Your task to perform on an android device: Show me popular games on the Play Store Image 0: 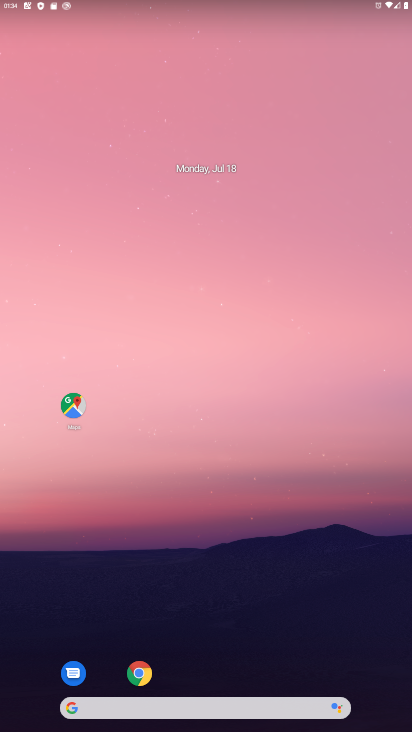
Step 0: drag from (262, 659) to (292, 39)
Your task to perform on an android device: Show me popular games on the Play Store Image 1: 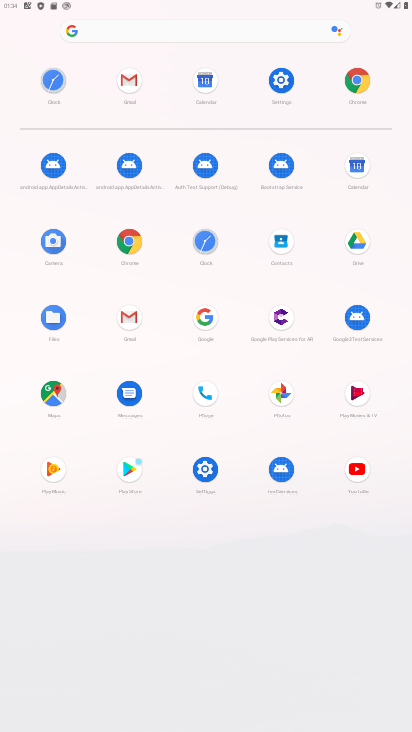
Step 1: click (361, 489)
Your task to perform on an android device: Show me popular games on the Play Store Image 2: 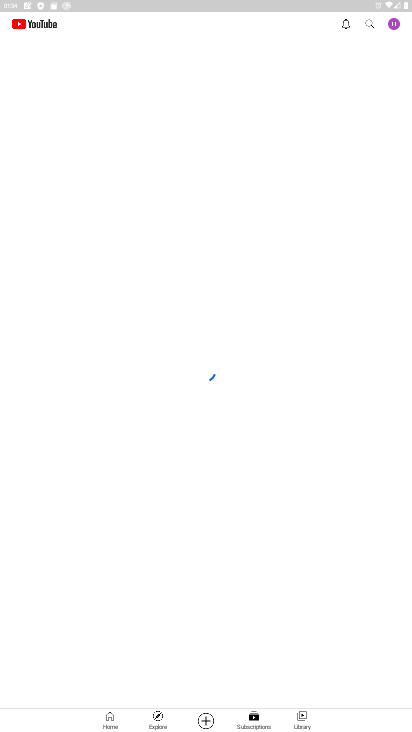
Step 2: press back button
Your task to perform on an android device: Show me popular games on the Play Store Image 3: 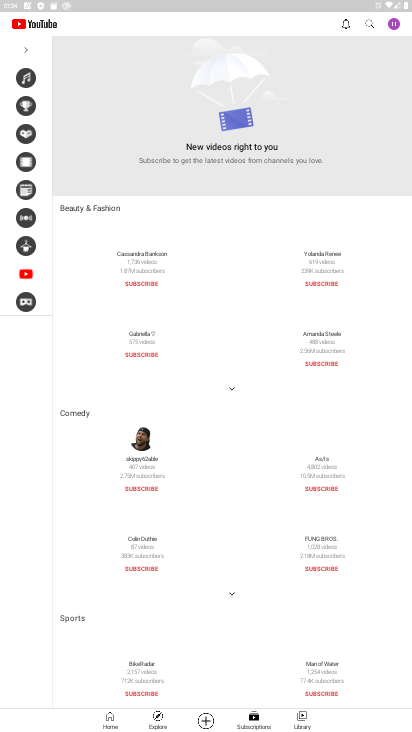
Step 3: press back button
Your task to perform on an android device: Show me popular games on the Play Store Image 4: 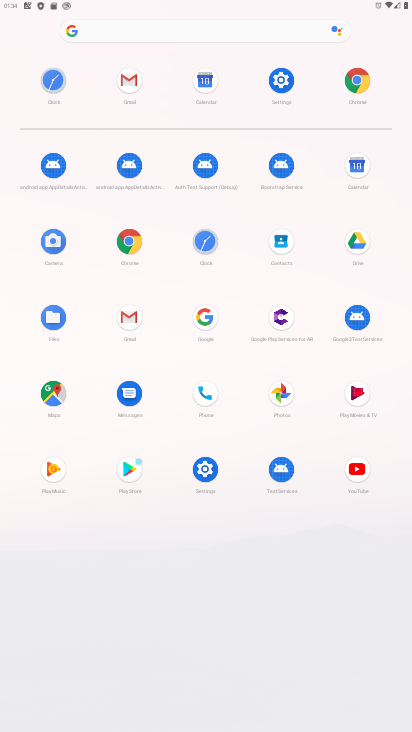
Step 4: click (139, 470)
Your task to perform on an android device: Show me popular games on the Play Store Image 5: 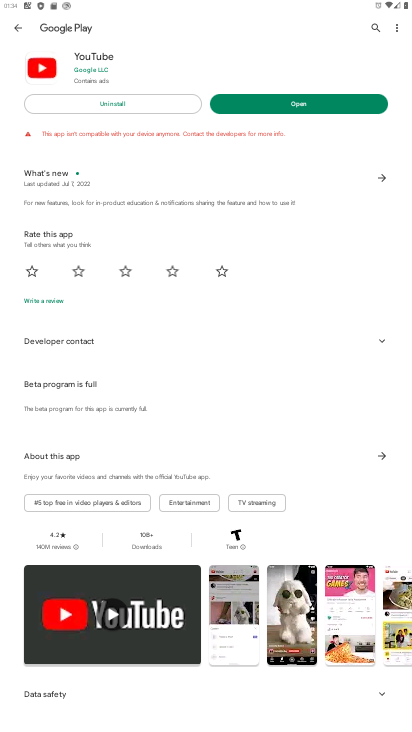
Step 5: click (11, 24)
Your task to perform on an android device: Show me popular games on the Play Store Image 6: 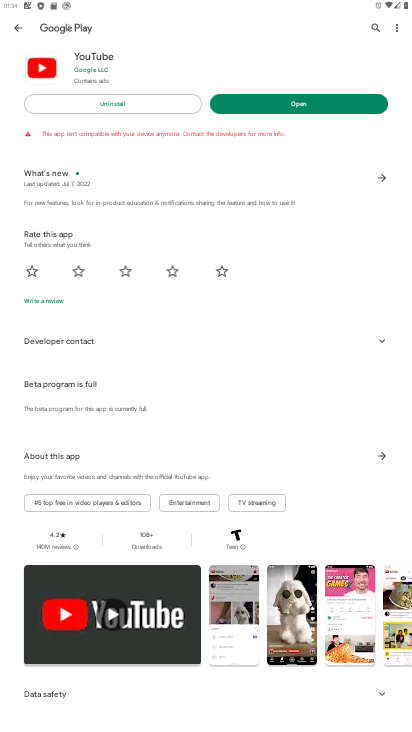
Step 6: click (22, 30)
Your task to perform on an android device: Show me popular games on the Play Store Image 7: 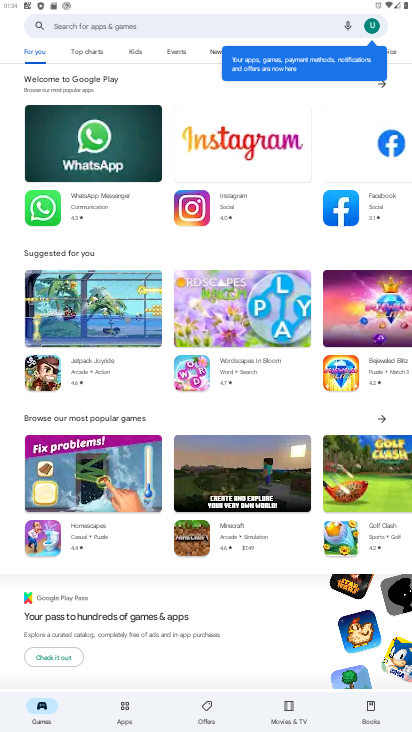
Step 7: click (126, 717)
Your task to perform on an android device: Show me popular games on the Play Store Image 8: 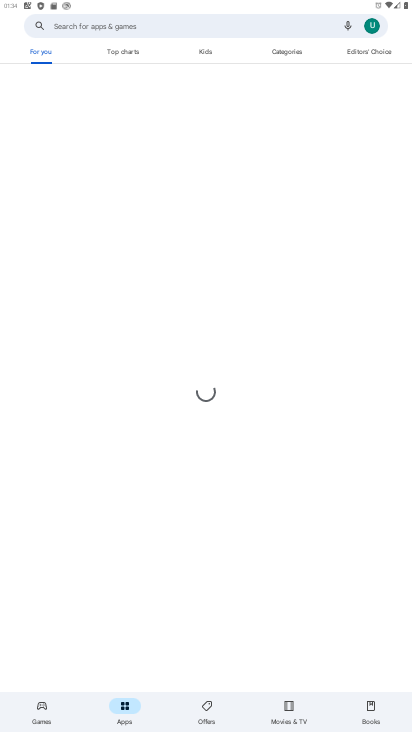
Step 8: click (32, 711)
Your task to perform on an android device: Show me popular games on the Play Store Image 9: 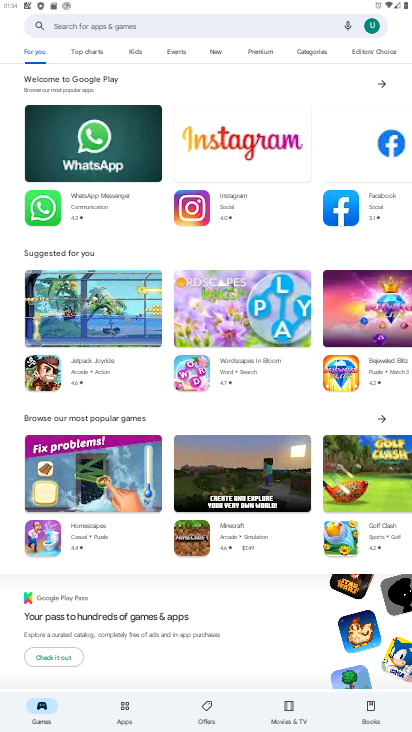
Step 9: click (121, 51)
Your task to perform on an android device: Show me popular games on the Play Store Image 10: 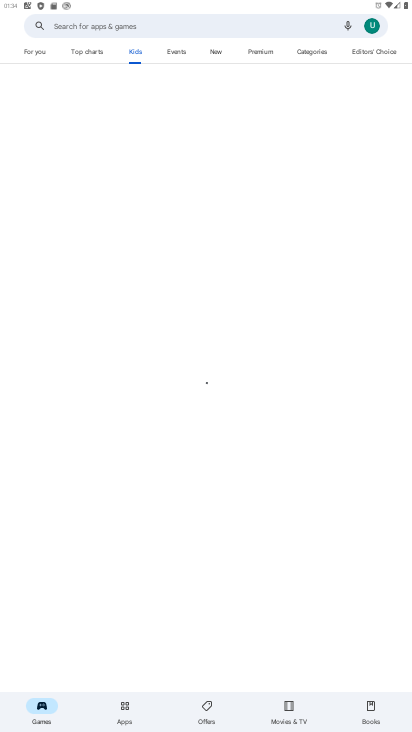
Step 10: task complete